Your task to perform on an android device: open wifi settings Image 0: 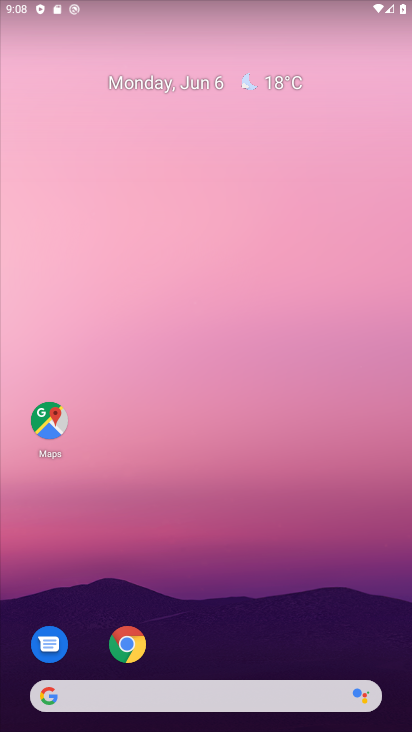
Step 0: drag from (376, 585) to (350, 286)
Your task to perform on an android device: open wifi settings Image 1: 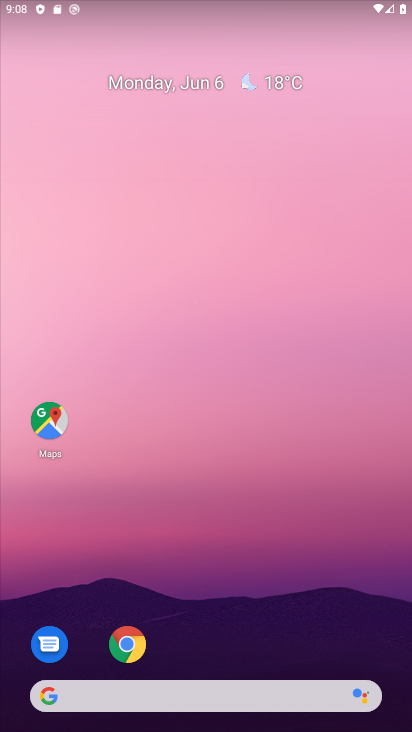
Step 1: drag from (338, 619) to (251, 223)
Your task to perform on an android device: open wifi settings Image 2: 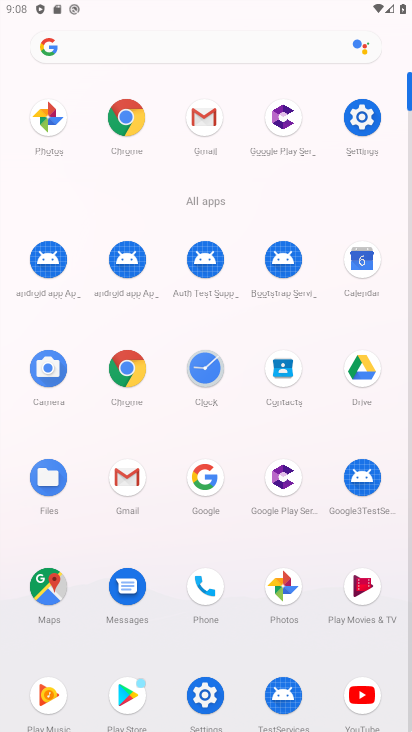
Step 2: click (213, 698)
Your task to perform on an android device: open wifi settings Image 3: 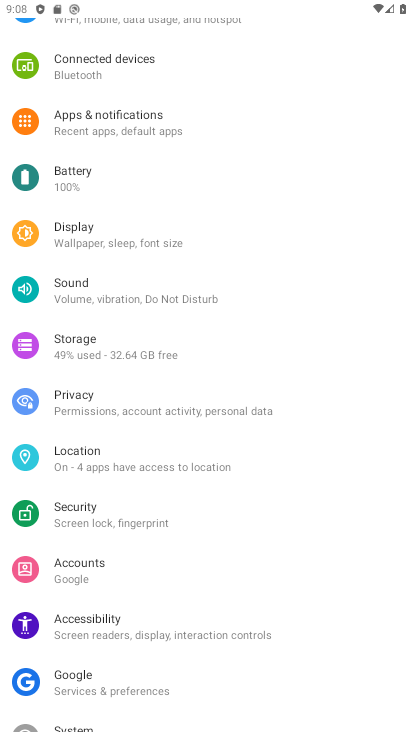
Step 3: drag from (265, 164) to (267, 452)
Your task to perform on an android device: open wifi settings Image 4: 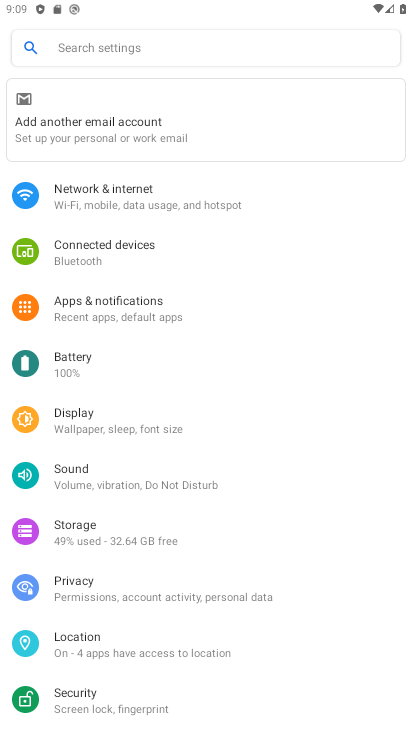
Step 4: click (154, 193)
Your task to perform on an android device: open wifi settings Image 5: 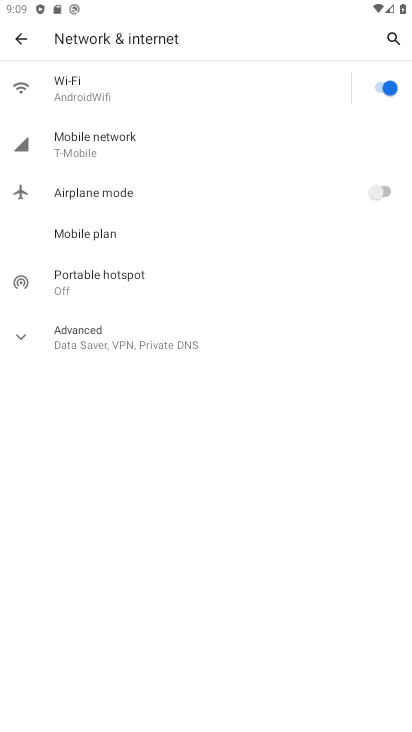
Step 5: task complete